Your task to perform on an android device: turn on showing notifications on the lock screen Image 0: 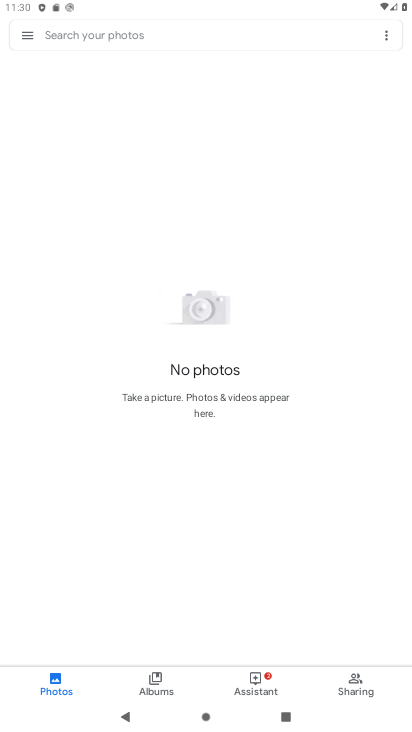
Step 0: press home button
Your task to perform on an android device: turn on showing notifications on the lock screen Image 1: 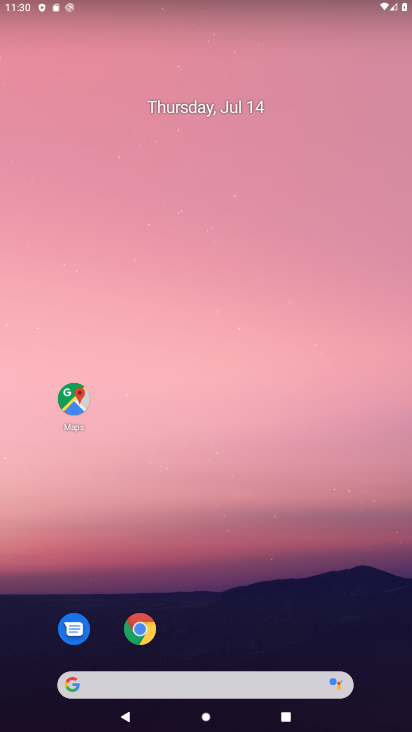
Step 1: drag from (216, 582) to (224, 128)
Your task to perform on an android device: turn on showing notifications on the lock screen Image 2: 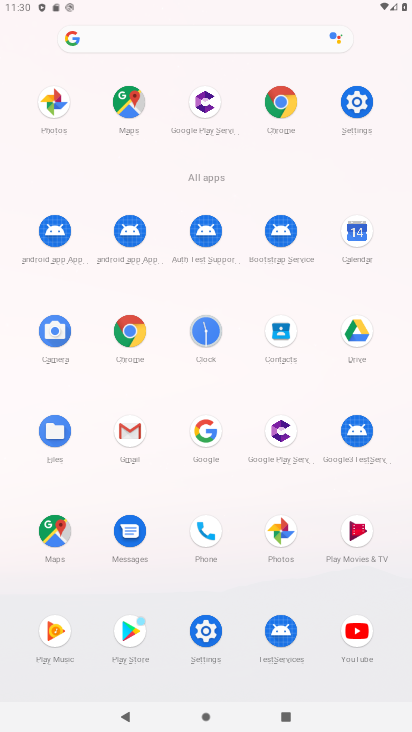
Step 2: click (357, 99)
Your task to perform on an android device: turn on showing notifications on the lock screen Image 3: 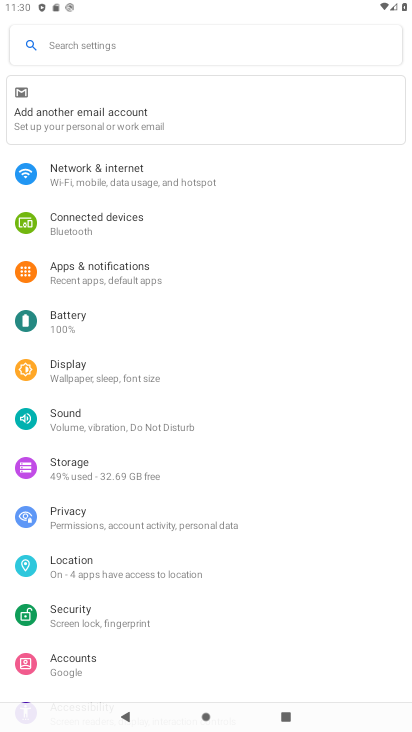
Step 3: click (107, 267)
Your task to perform on an android device: turn on showing notifications on the lock screen Image 4: 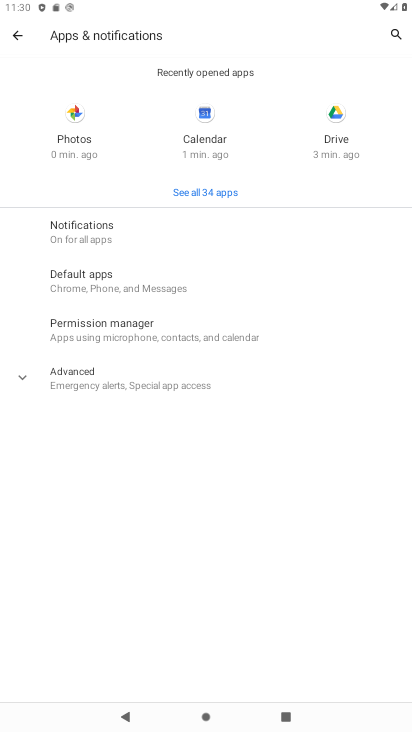
Step 4: click (110, 241)
Your task to perform on an android device: turn on showing notifications on the lock screen Image 5: 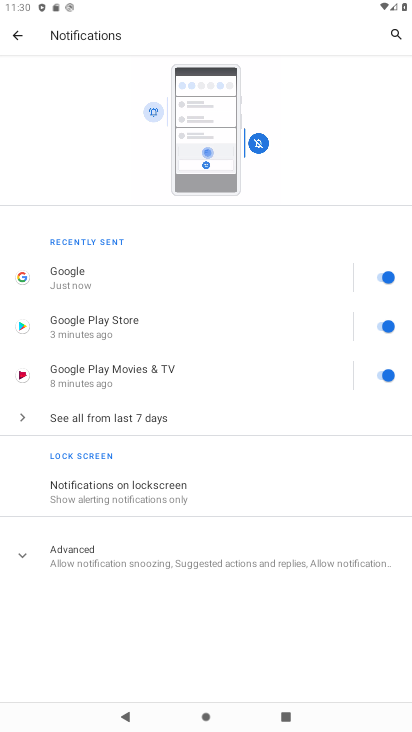
Step 5: click (177, 493)
Your task to perform on an android device: turn on showing notifications on the lock screen Image 6: 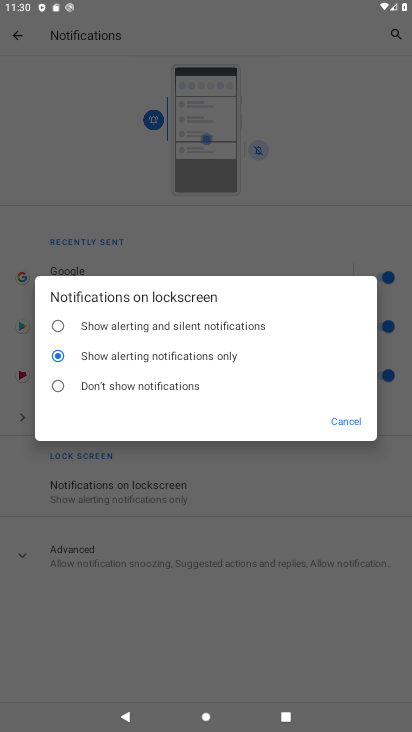
Step 6: task complete